Your task to perform on an android device: Go to sound settings Image 0: 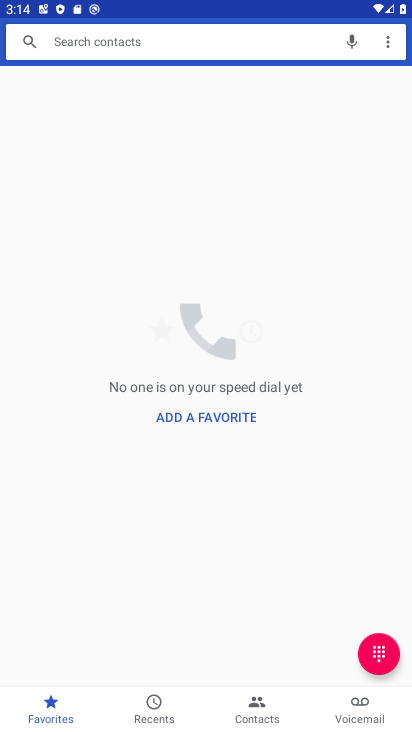
Step 0: press home button
Your task to perform on an android device: Go to sound settings Image 1: 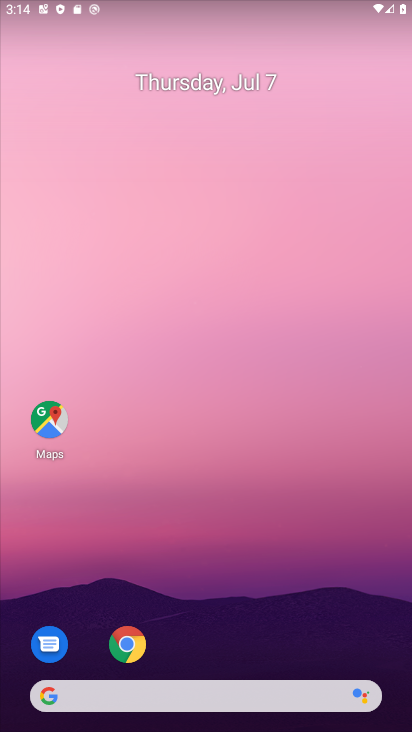
Step 1: drag from (159, 60) to (150, 0)
Your task to perform on an android device: Go to sound settings Image 2: 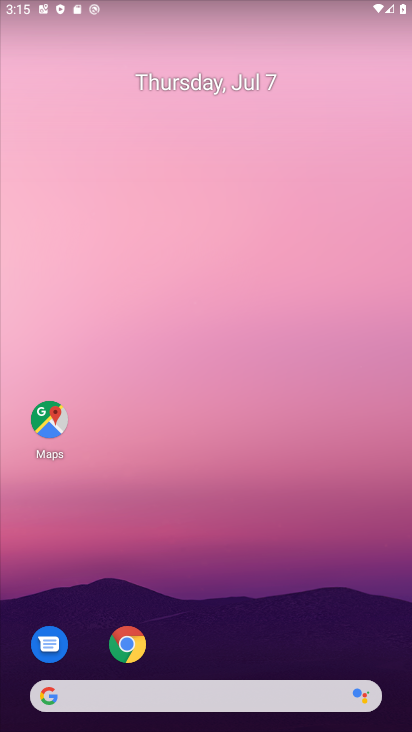
Step 2: drag from (175, 663) to (140, 0)
Your task to perform on an android device: Go to sound settings Image 3: 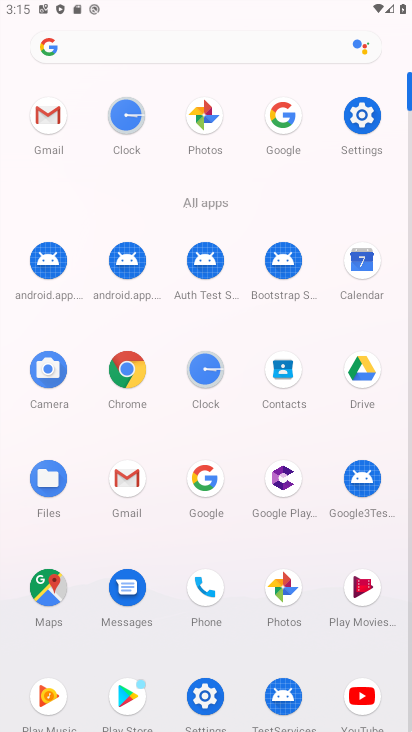
Step 3: click (197, 683)
Your task to perform on an android device: Go to sound settings Image 4: 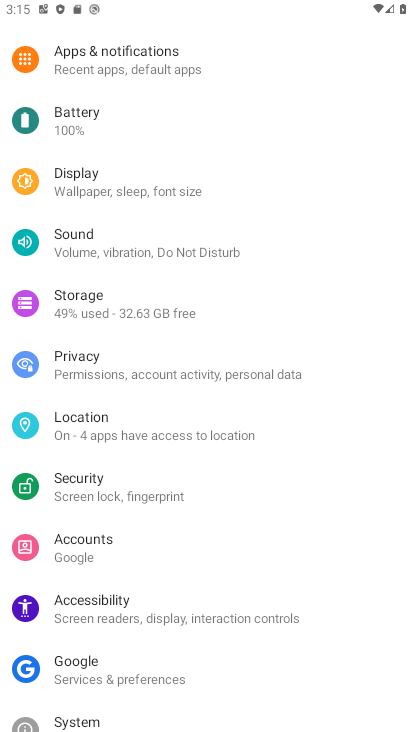
Step 4: click (55, 245)
Your task to perform on an android device: Go to sound settings Image 5: 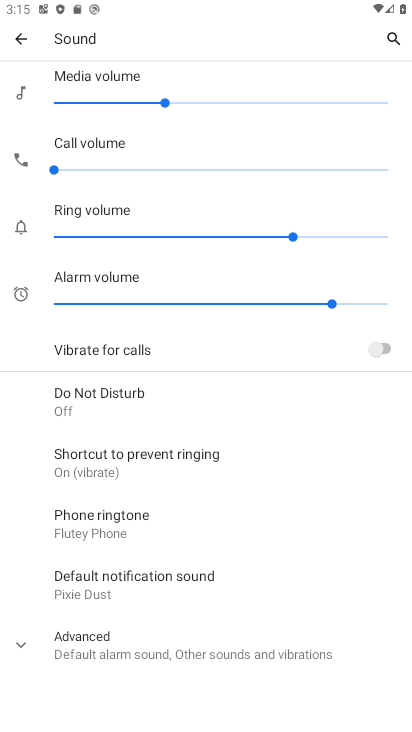
Step 5: task complete